Your task to perform on an android device: open a bookmark in the chrome app Image 0: 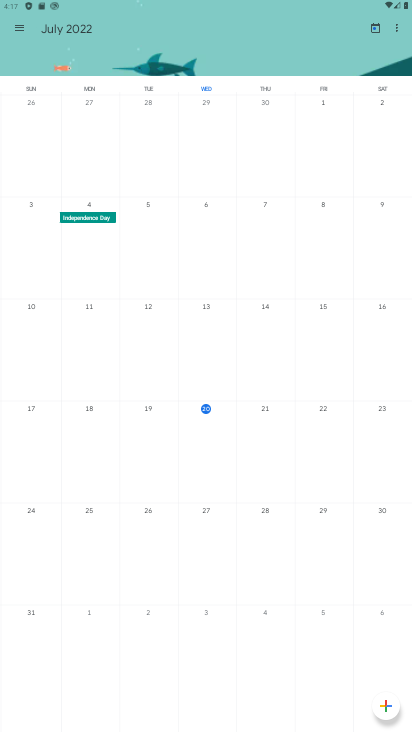
Step 0: press home button
Your task to perform on an android device: open a bookmark in the chrome app Image 1: 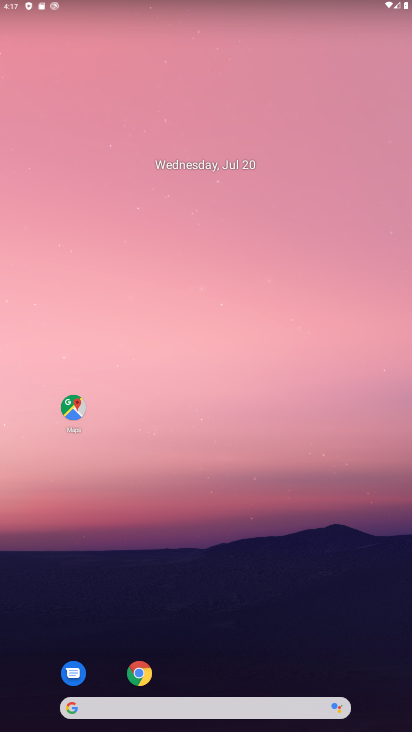
Step 1: drag from (251, 660) to (332, 154)
Your task to perform on an android device: open a bookmark in the chrome app Image 2: 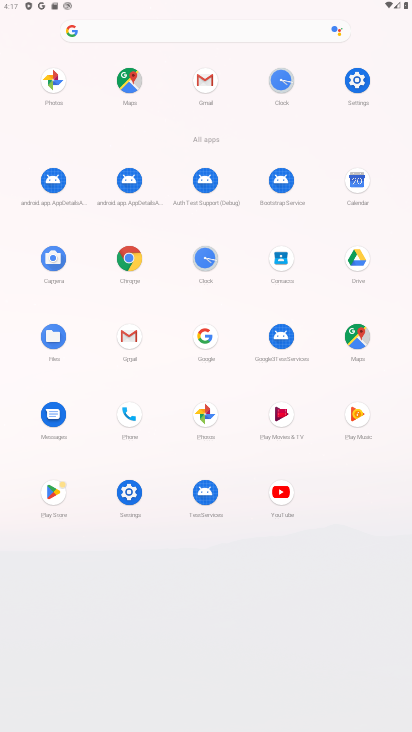
Step 2: click (131, 265)
Your task to perform on an android device: open a bookmark in the chrome app Image 3: 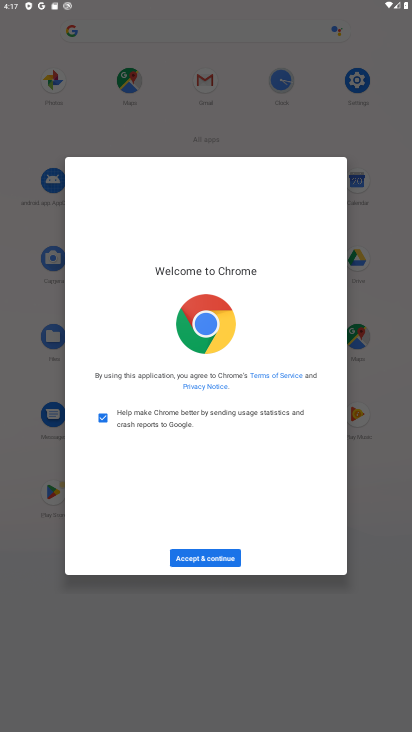
Step 3: click (206, 556)
Your task to perform on an android device: open a bookmark in the chrome app Image 4: 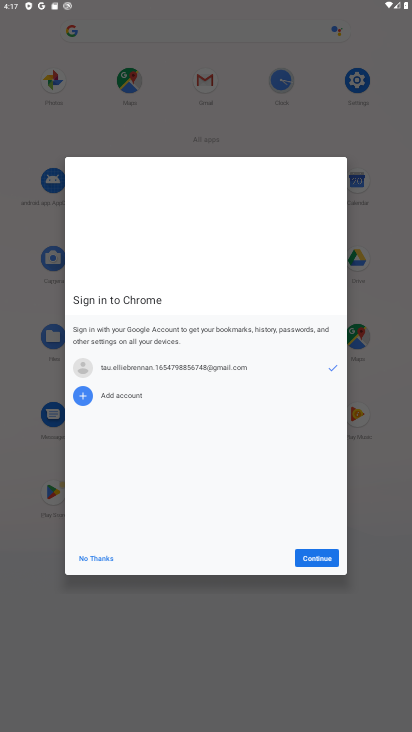
Step 4: click (304, 552)
Your task to perform on an android device: open a bookmark in the chrome app Image 5: 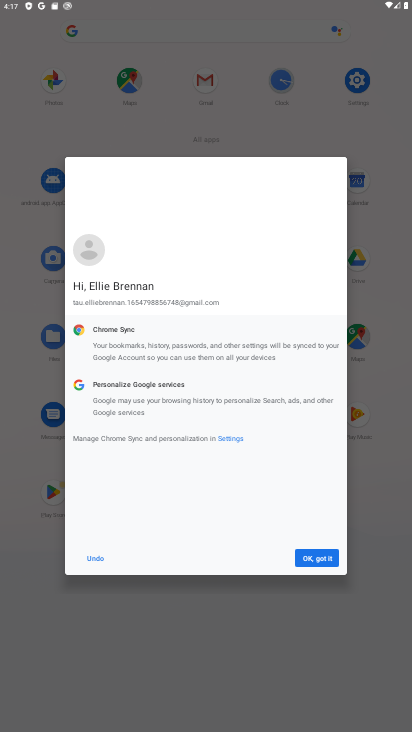
Step 5: click (325, 554)
Your task to perform on an android device: open a bookmark in the chrome app Image 6: 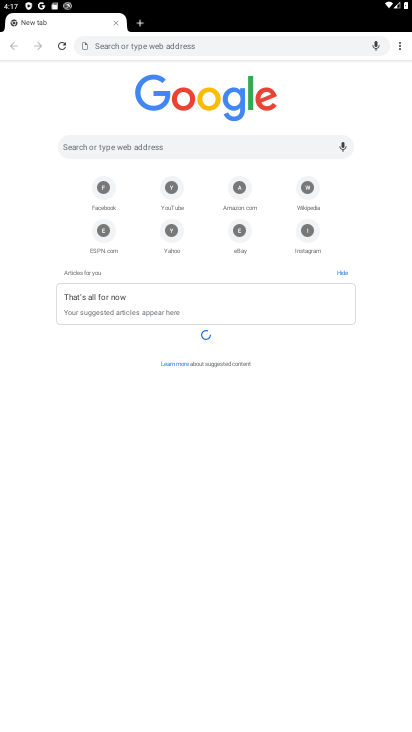
Step 6: drag from (401, 37) to (335, 89)
Your task to perform on an android device: open a bookmark in the chrome app Image 7: 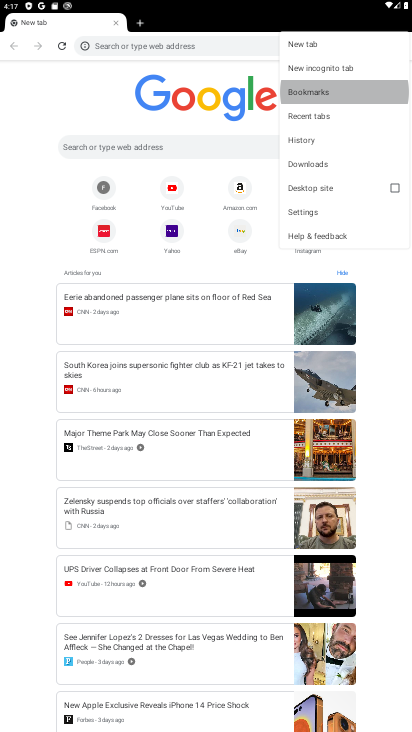
Step 7: click (335, 89)
Your task to perform on an android device: open a bookmark in the chrome app Image 8: 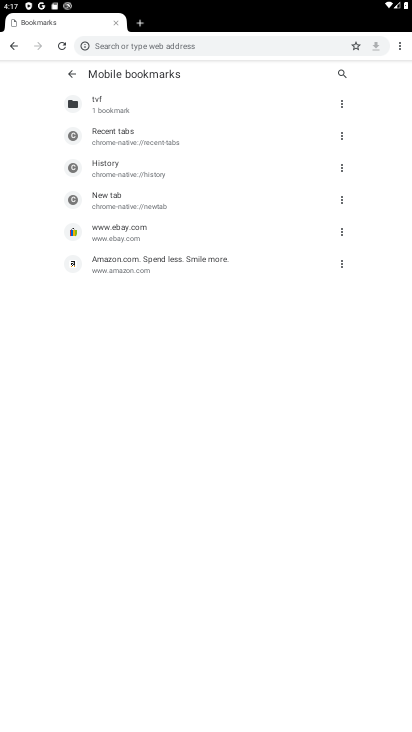
Step 8: click (119, 201)
Your task to perform on an android device: open a bookmark in the chrome app Image 9: 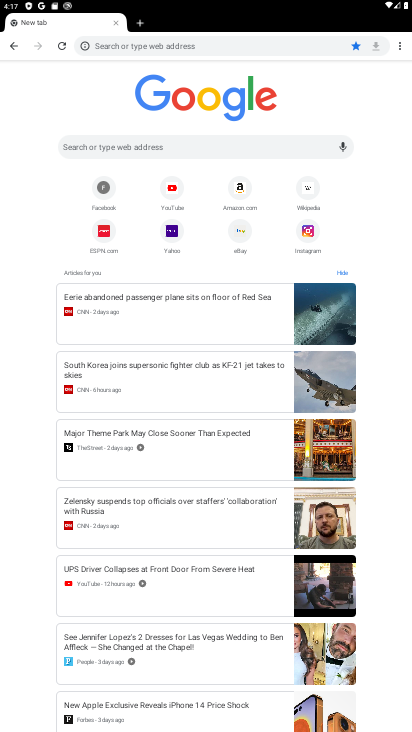
Step 9: click (120, 200)
Your task to perform on an android device: open a bookmark in the chrome app Image 10: 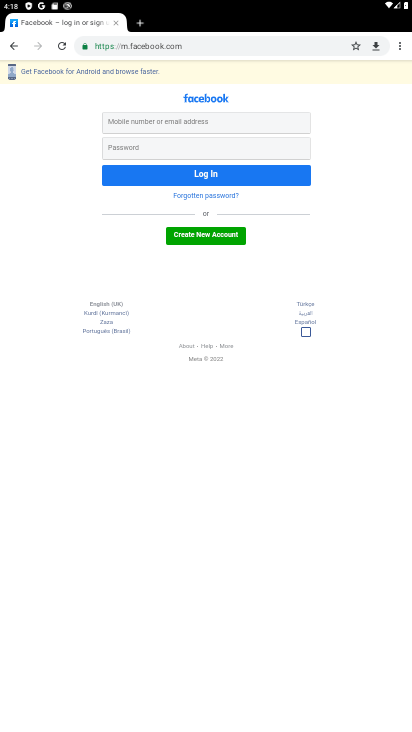
Step 10: task complete